Your task to perform on an android device: empty trash in the gmail app Image 0: 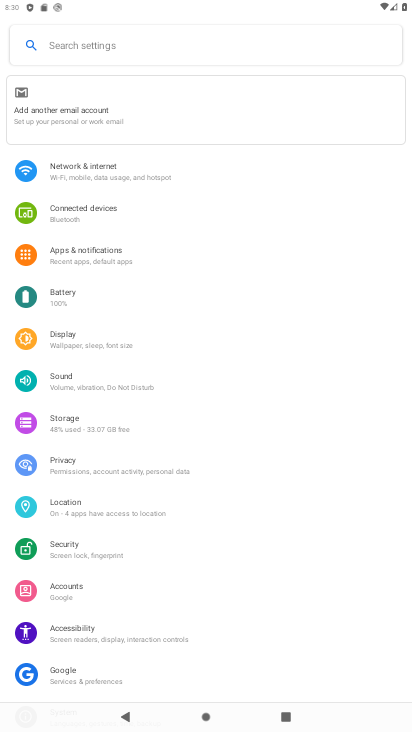
Step 0: press home button
Your task to perform on an android device: empty trash in the gmail app Image 1: 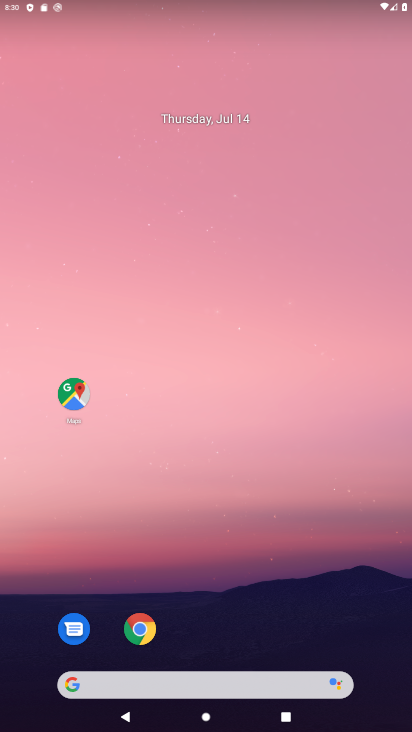
Step 1: drag from (252, 652) to (199, 37)
Your task to perform on an android device: empty trash in the gmail app Image 2: 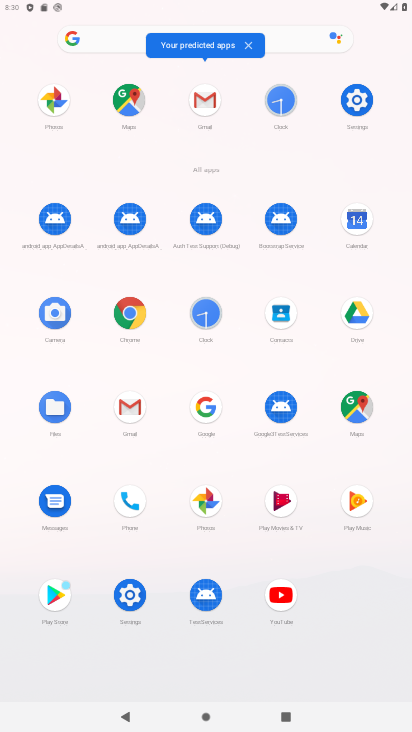
Step 2: click (205, 98)
Your task to perform on an android device: empty trash in the gmail app Image 3: 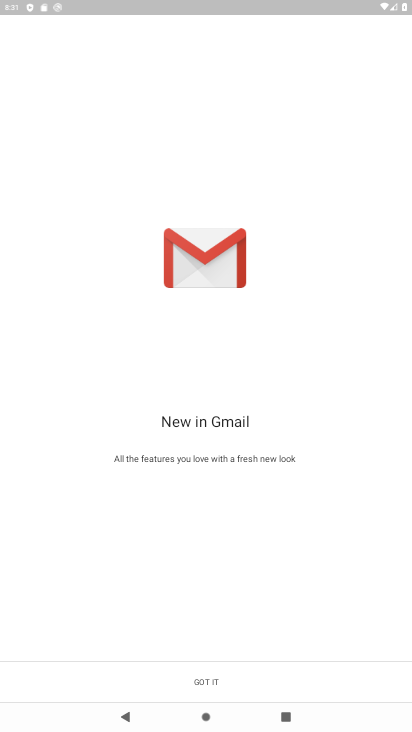
Step 3: click (210, 685)
Your task to perform on an android device: empty trash in the gmail app Image 4: 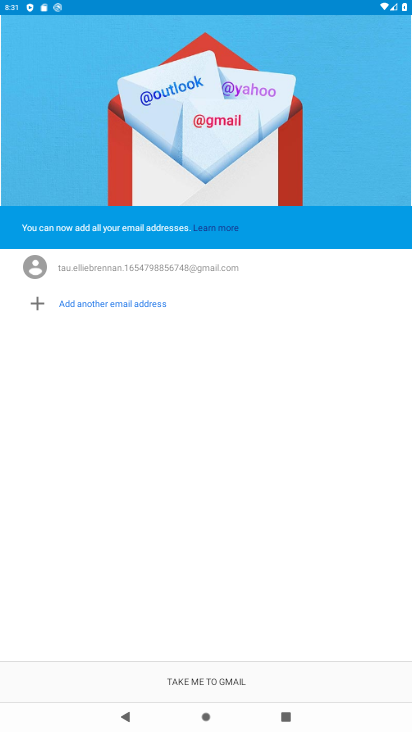
Step 4: click (204, 684)
Your task to perform on an android device: empty trash in the gmail app Image 5: 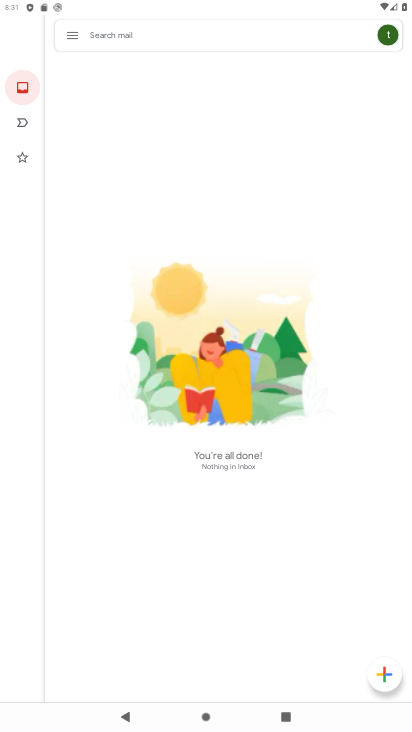
Step 5: click (71, 34)
Your task to perform on an android device: empty trash in the gmail app Image 6: 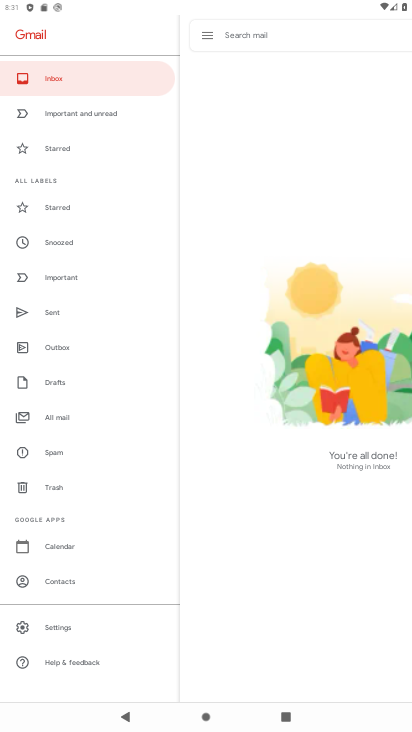
Step 6: click (52, 480)
Your task to perform on an android device: empty trash in the gmail app Image 7: 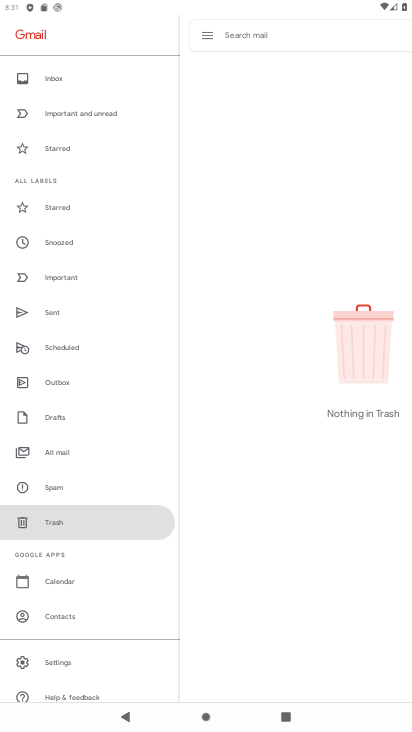
Step 7: task complete